Your task to perform on an android device: Open eBay Image 0: 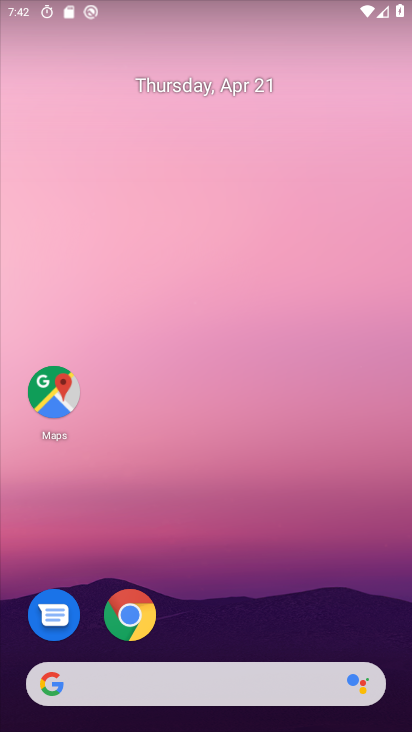
Step 0: press home button
Your task to perform on an android device: Open eBay Image 1: 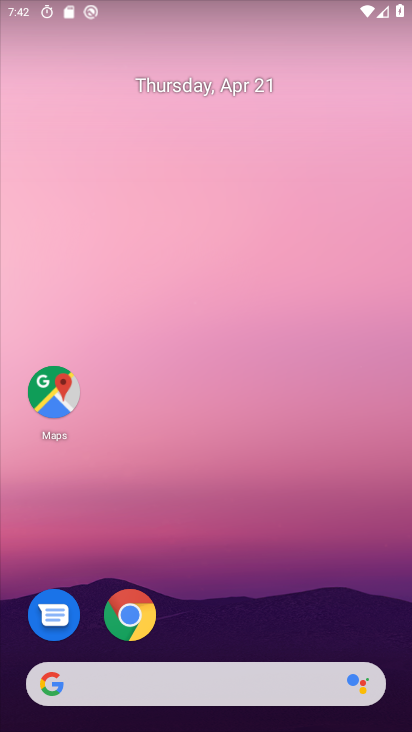
Step 1: drag from (165, 680) to (330, 195)
Your task to perform on an android device: Open eBay Image 2: 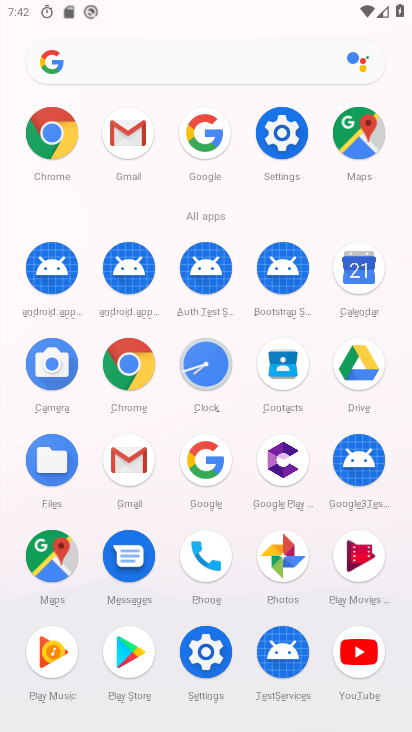
Step 2: click (53, 139)
Your task to perform on an android device: Open eBay Image 3: 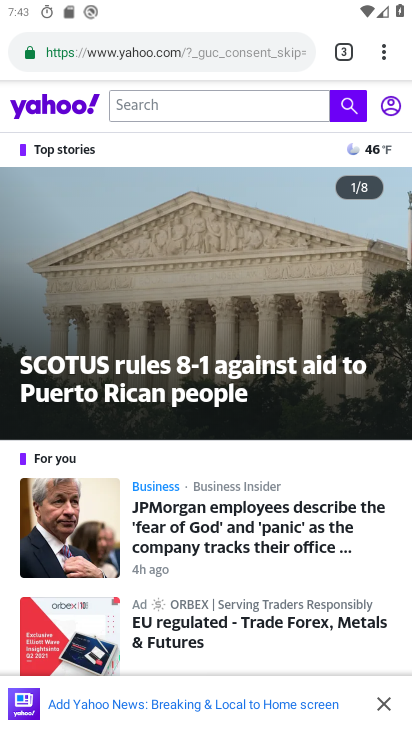
Step 3: click (381, 61)
Your task to perform on an android device: Open eBay Image 4: 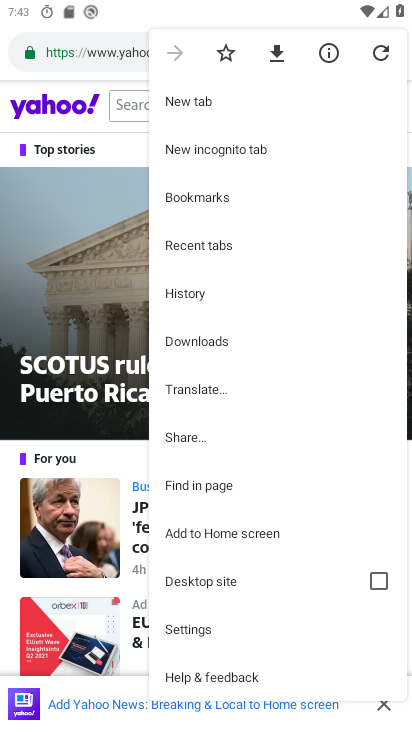
Step 4: click (201, 97)
Your task to perform on an android device: Open eBay Image 5: 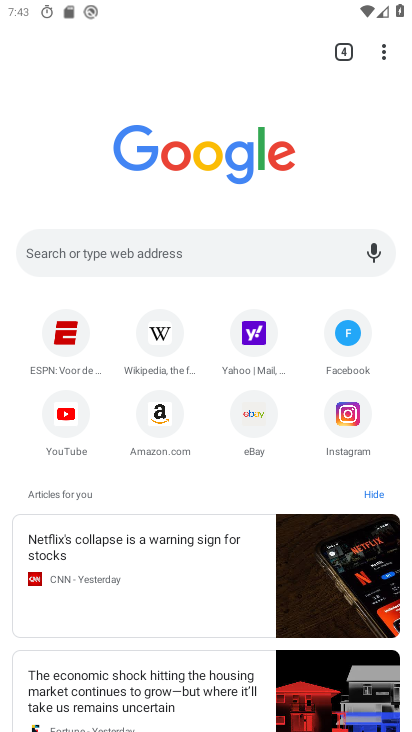
Step 5: click (258, 420)
Your task to perform on an android device: Open eBay Image 6: 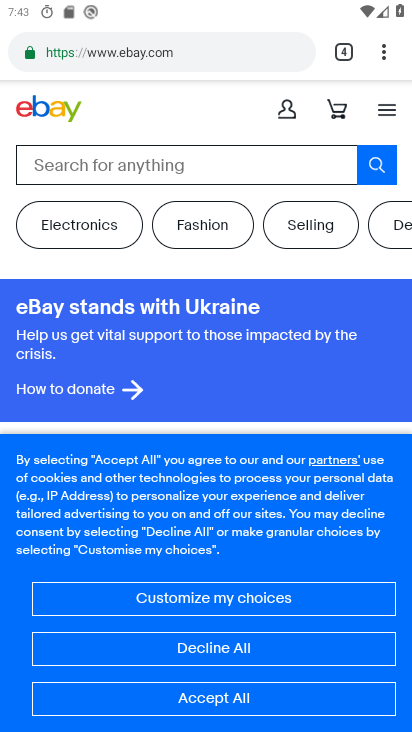
Step 6: task complete